Your task to perform on an android device: How much does a 2 bedroom apartment rent for in Seattle? Image 0: 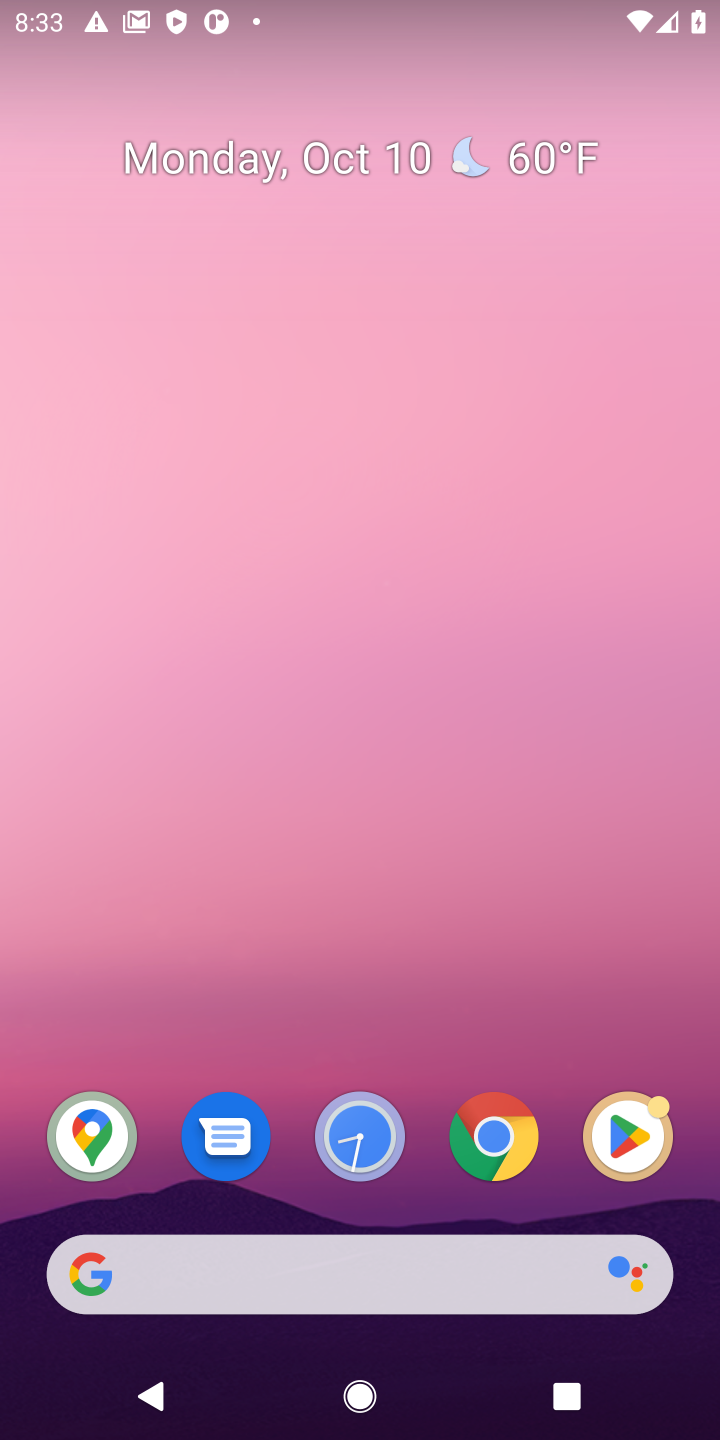
Step 0: click (253, 1278)
Your task to perform on an android device: How much does a 2 bedroom apartment rent for in Seattle? Image 1: 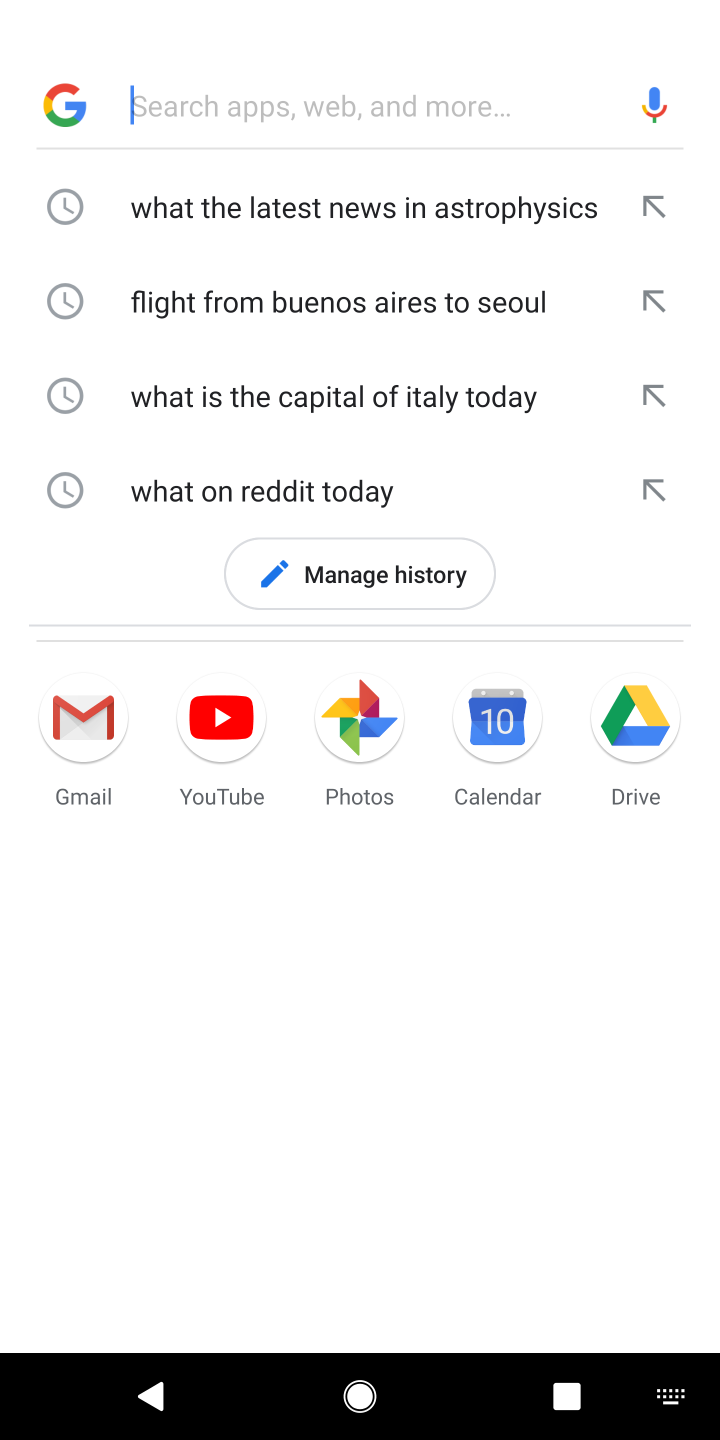
Step 1: click (181, 101)
Your task to perform on an android device: How much does a 2 bedroom apartment rent for in Seattle? Image 2: 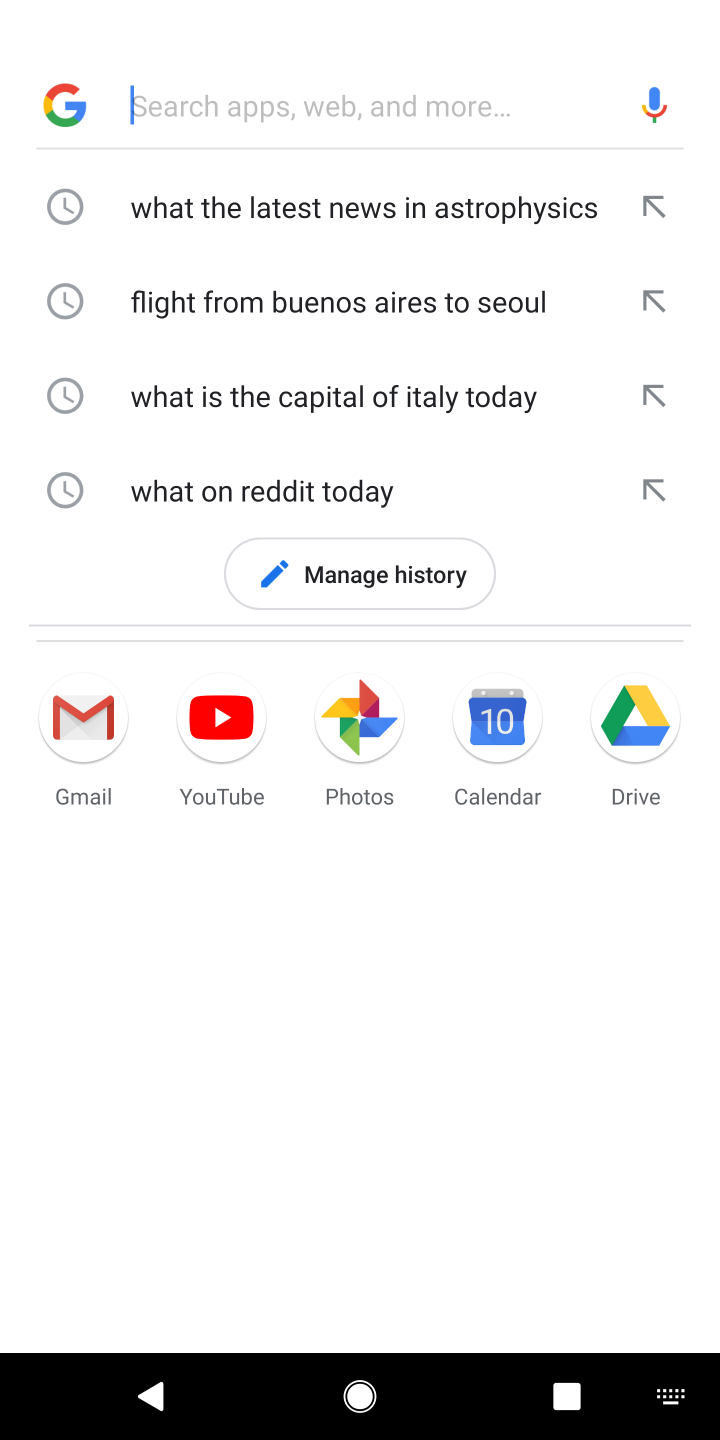
Step 2: type "How much does a 2 bedroom apartment rent for in Seattle?"
Your task to perform on an android device: How much does a 2 bedroom apartment rent for in Seattle? Image 3: 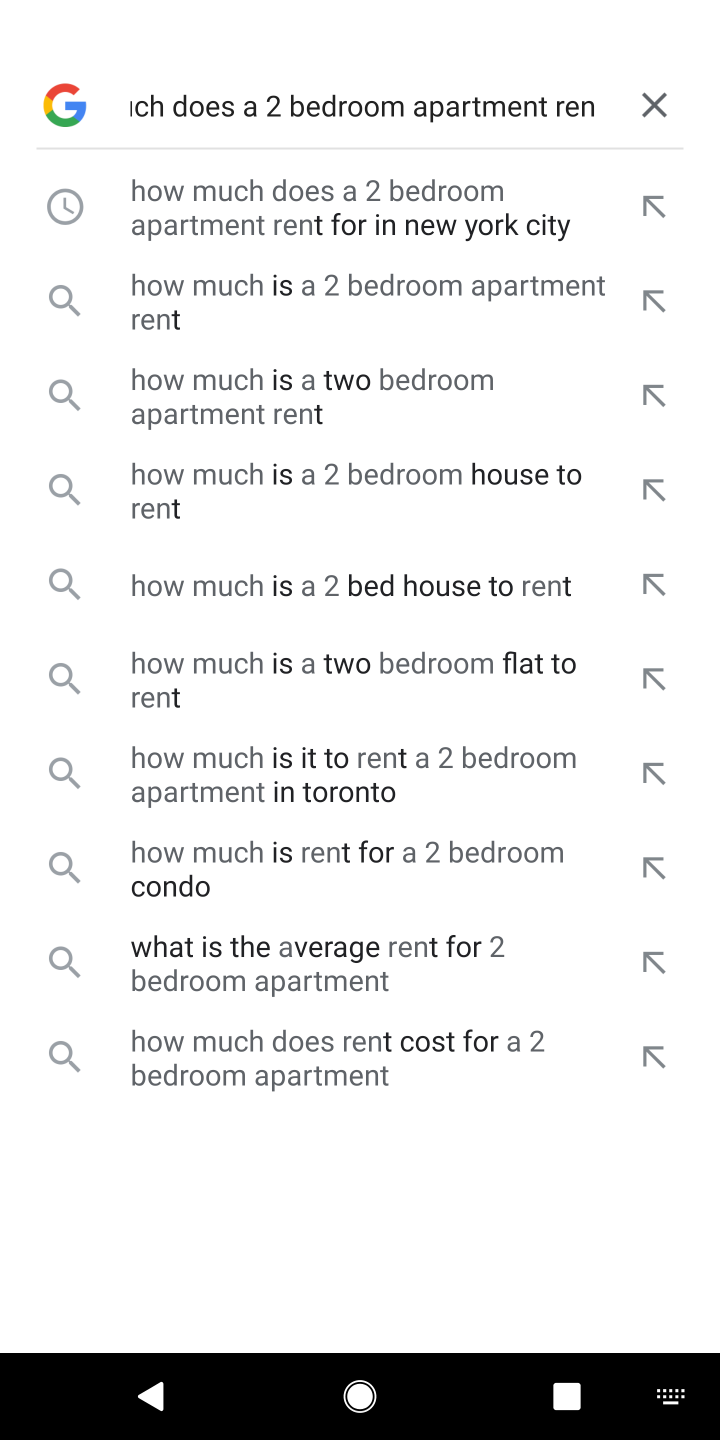
Step 3: type "t for in seattle"
Your task to perform on an android device: How much does a 2 bedroom apartment rent for in Seattle? Image 4: 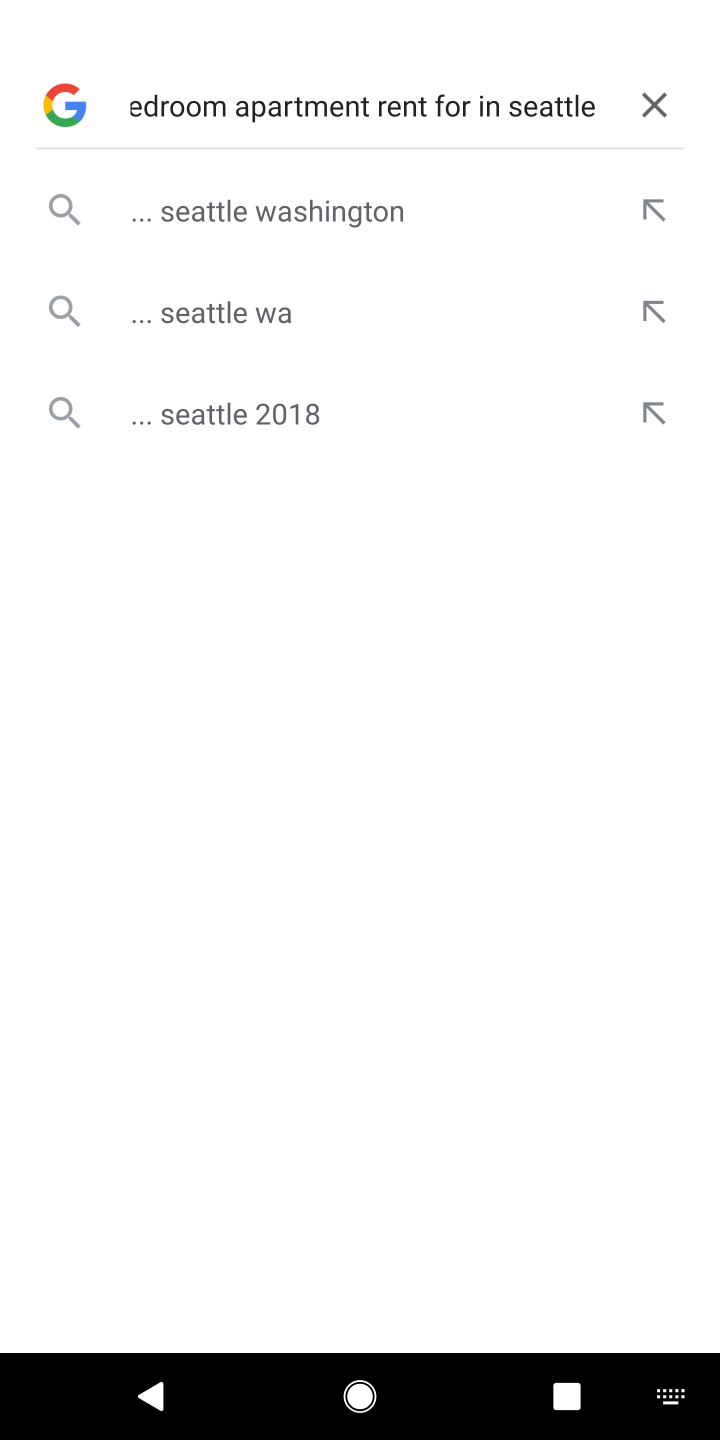
Step 4: click (233, 301)
Your task to perform on an android device: How much does a 2 bedroom apartment rent for in Seattle? Image 5: 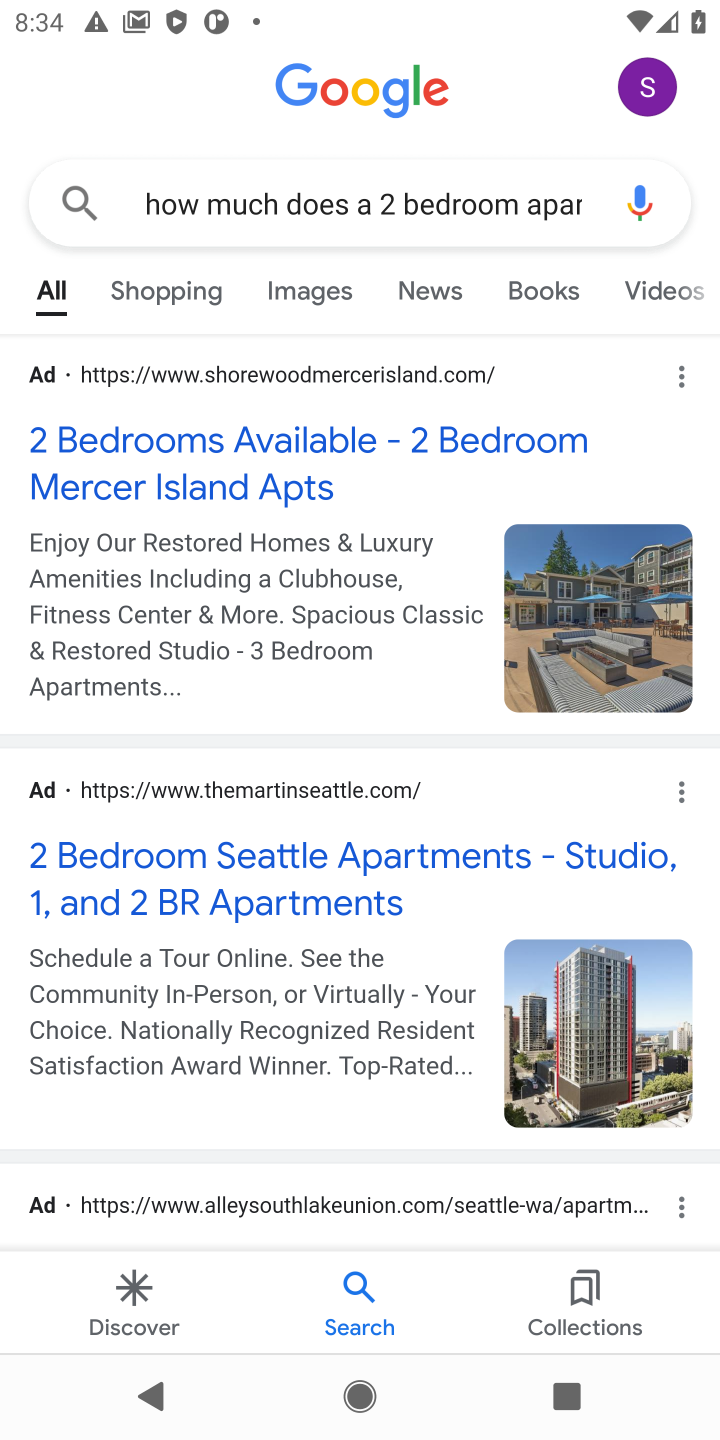
Step 5: click (254, 440)
Your task to perform on an android device: How much does a 2 bedroom apartment rent for in Seattle? Image 6: 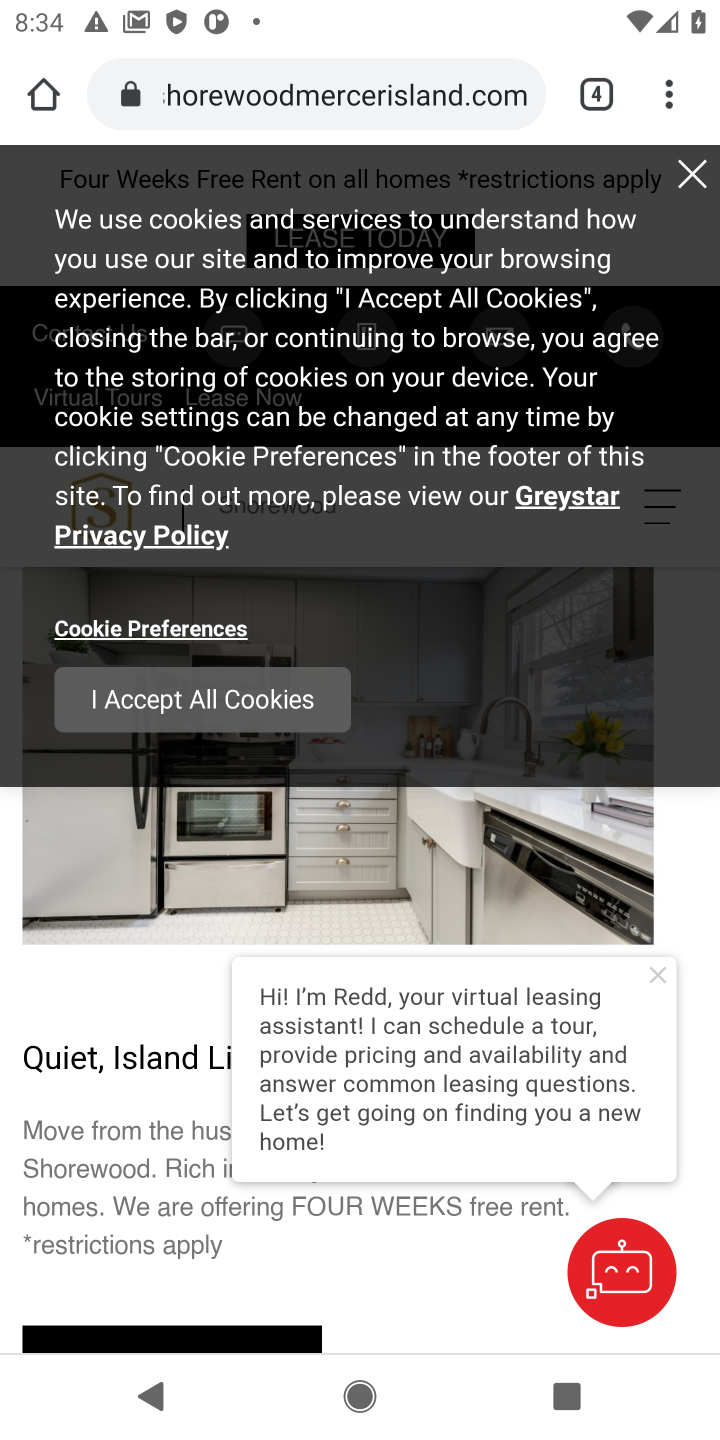
Step 6: click (691, 172)
Your task to perform on an android device: How much does a 2 bedroom apartment rent for in Seattle? Image 7: 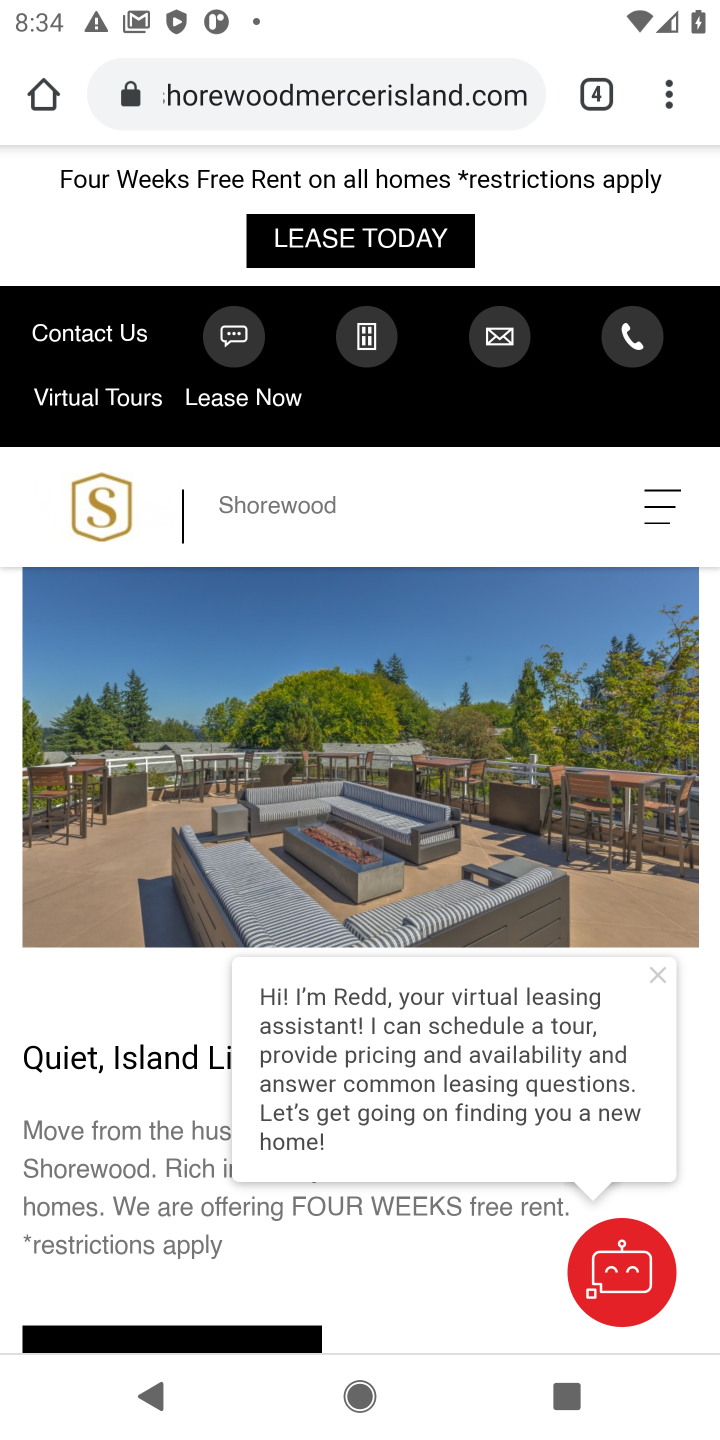
Step 7: drag from (145, 932) to (146, 718)
Your task to perform on an android device: How much does a 2 bedroom apartment rent for in Seattle? Image 8: 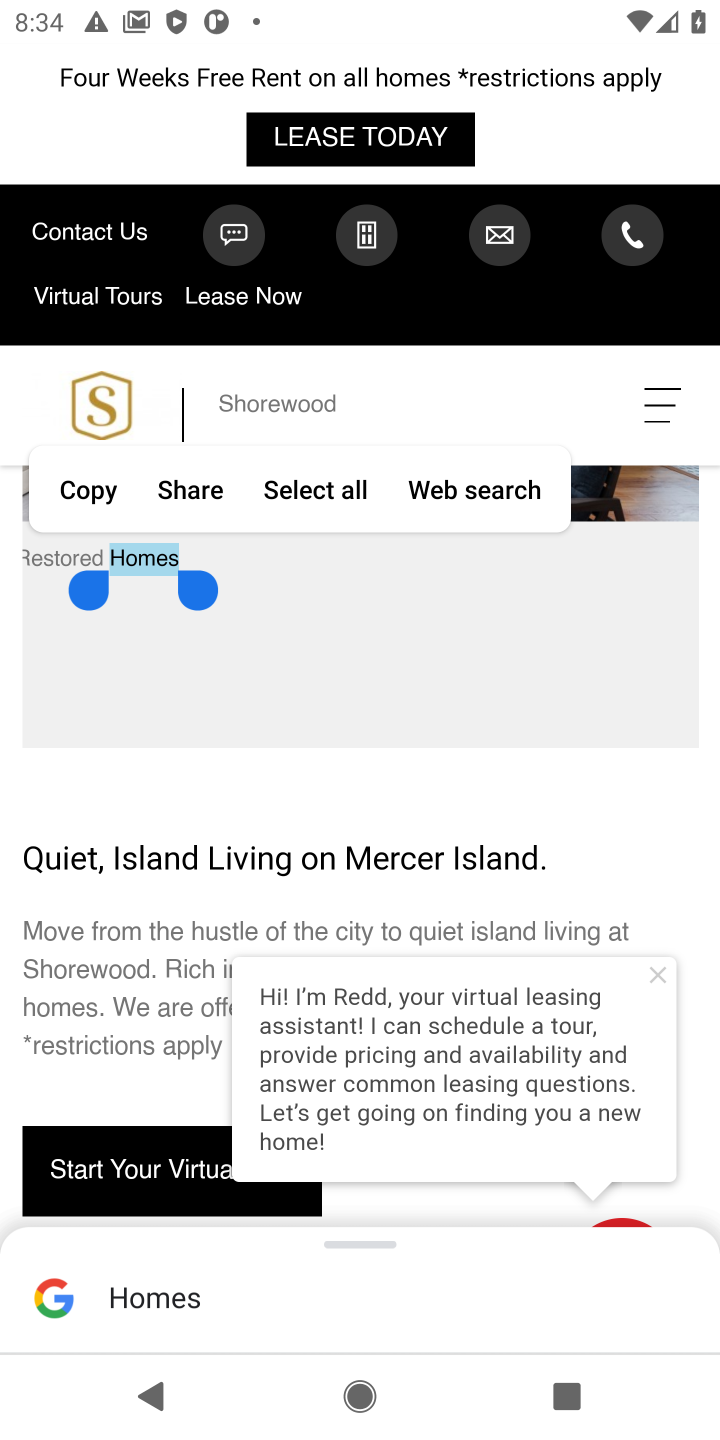
Step 8: click (660, 980)
Your task to perform on an android device: How much does a 2 bedroom apartment rent for in Seattle? Image 9: 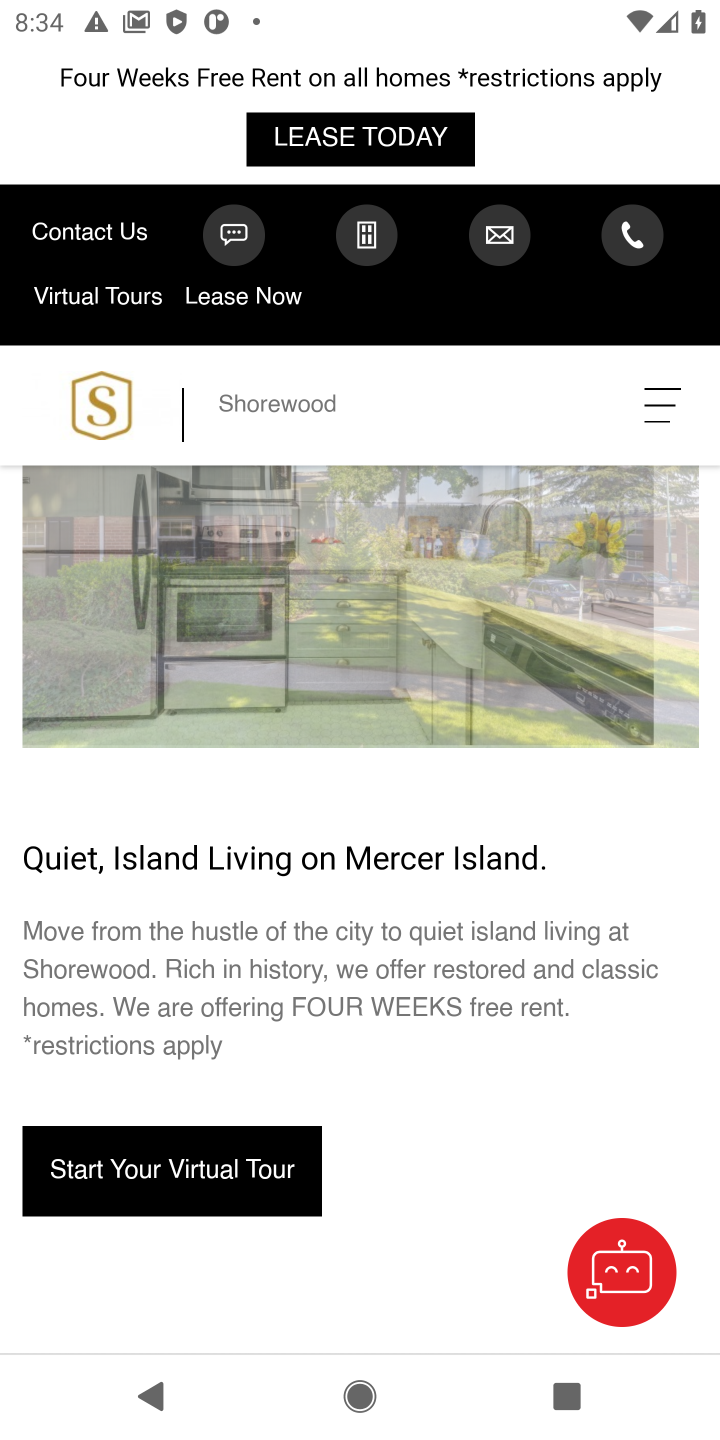
Step 9: task complete